Your task to perform on an android device: refresh tabs in the chrome app Image 0: 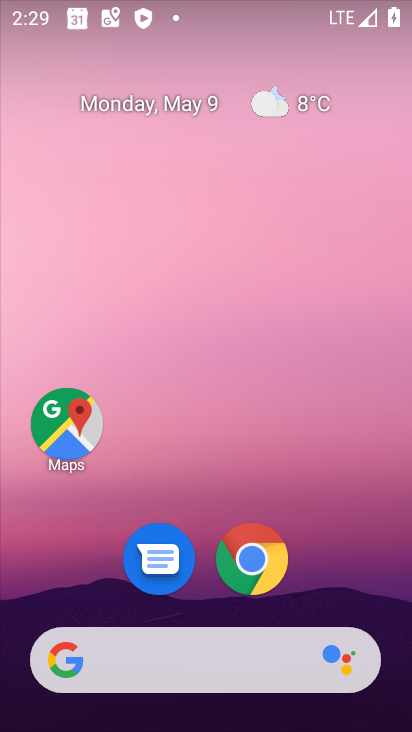
Step 0: click (234, 553)
Your task to perform on an android device: refresh tabs in the chrome app Image 1: 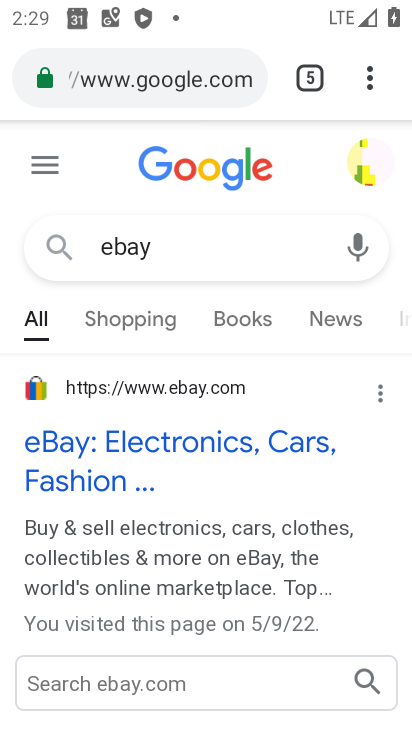
Step 1: click (376, 75)
Your task to perform on an android device: refresh tabs in the chrome app Image 2: 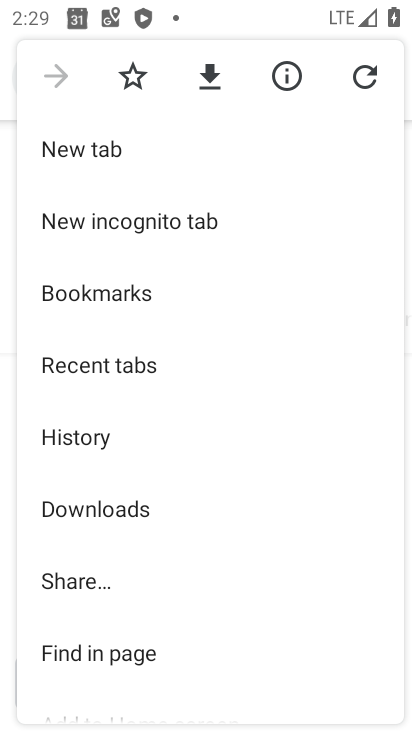
Step 2: click (363, 74)
Your task to perform on an android device: refresh tabs in the chrome app Image 3: 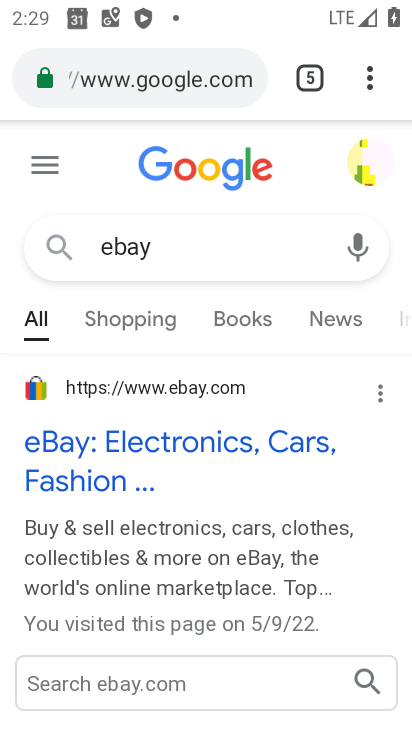
Step 3: task complete